Your task to perform on an android device: Go to eBay Image 0: 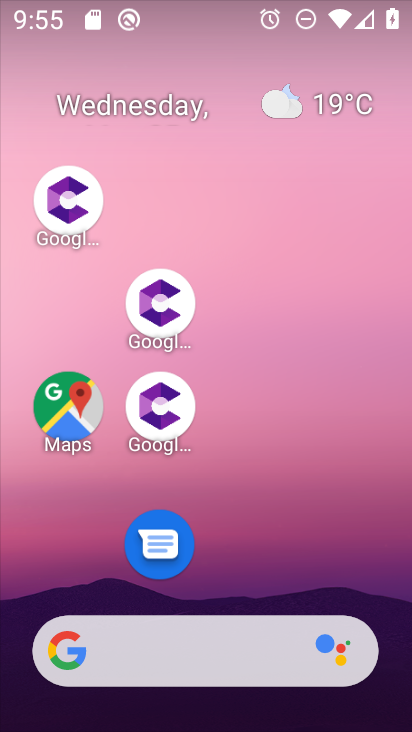
Step 0: drag from (291, 502) to (180, 28)
Your task to perform on an android device: Go to eBay Image 1: 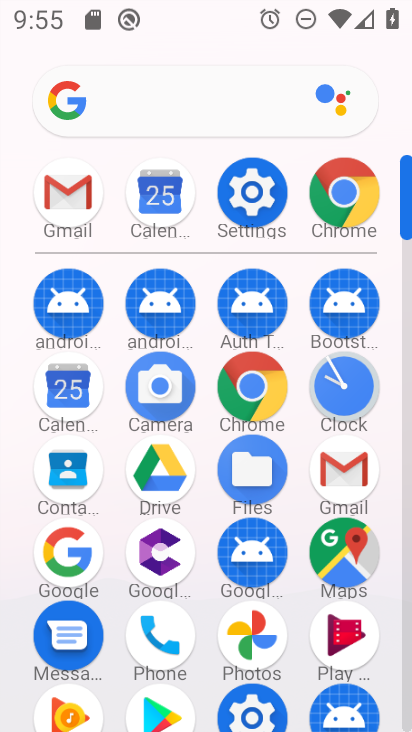
Step 1: click (334, 183)
Your task to perform on an android device: Go to eBay Image 2: 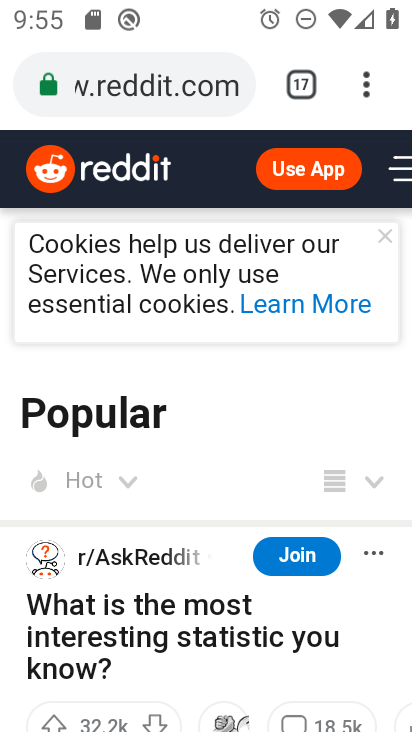
Step 2: click (363, 87)
Your task to perform on an android device: Go to eBay Image 3: 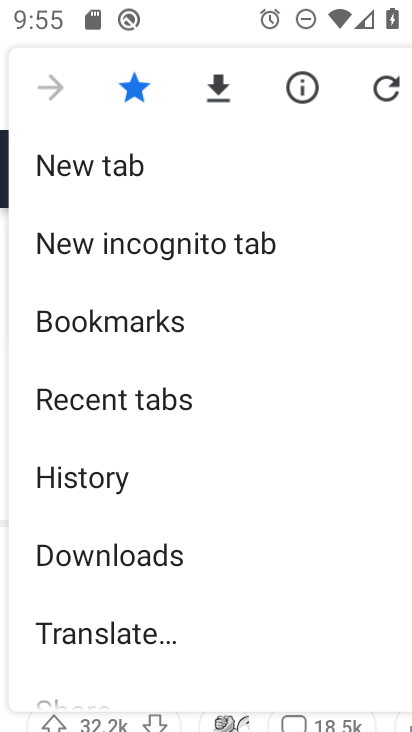
Step 3: click (128, 169)
Your task to perform on an android device: Go to eBay Image 4: 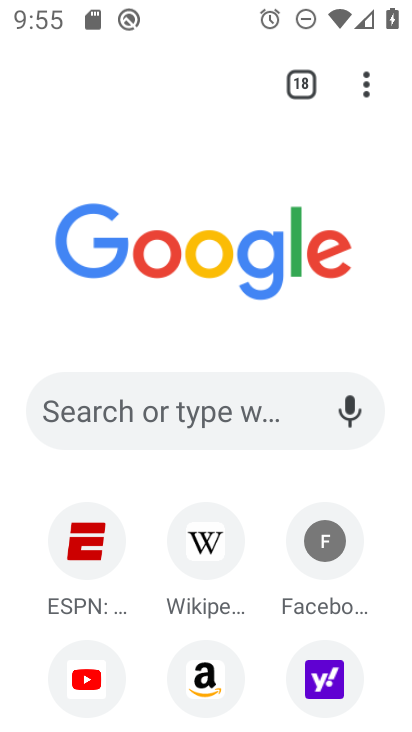
Step 4: click (171, 421)
Your task to perform on an android device: Go to eBay Image 5: 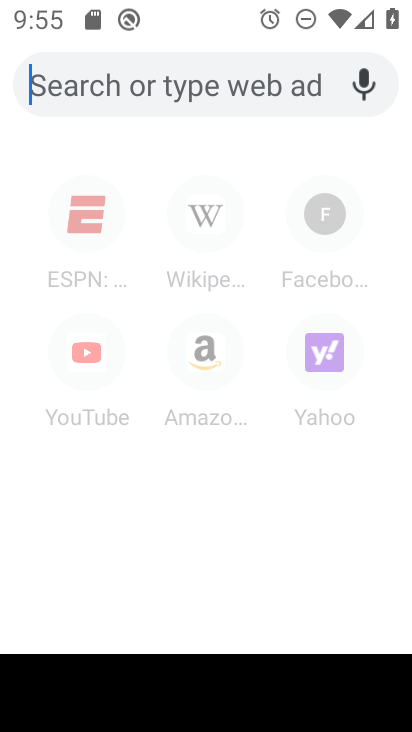
Step 5: type "ebay"
Your task to perform on an android device: Go to eBay Image 6: 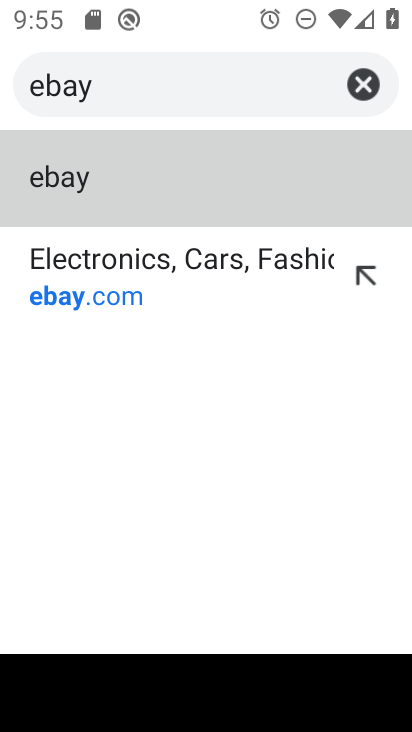
Step 6: click (91, 170)
Your task to perform on an android device: Go to eBay Image 7: 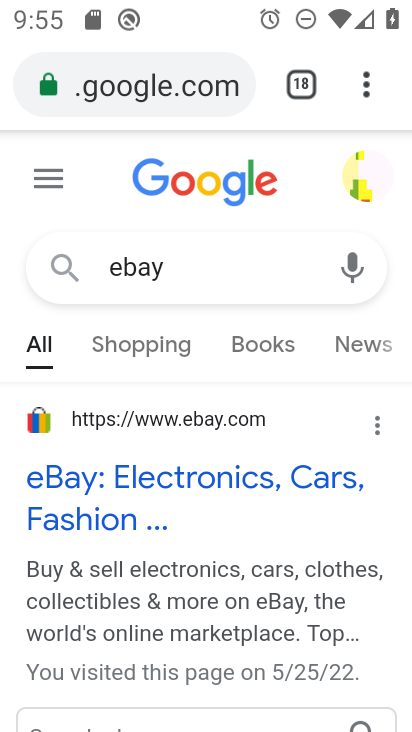
Step 7: click (69, 465)
Your task to perform on an android device: Go to eBay Image 8: 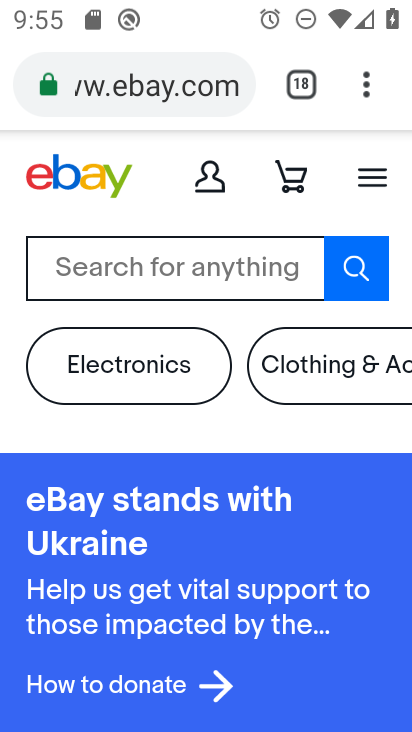
Step 8: task complete